Your task to perform on an android device: Open Youtube and go to "Your channel" Image 0: 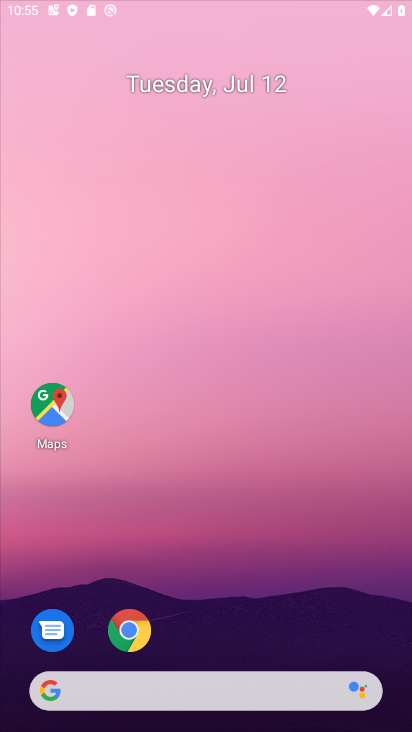
Step 0: click (280, 65)
Your task to perform on an android device: Open Youtube and go to "Your channel" Image 1: 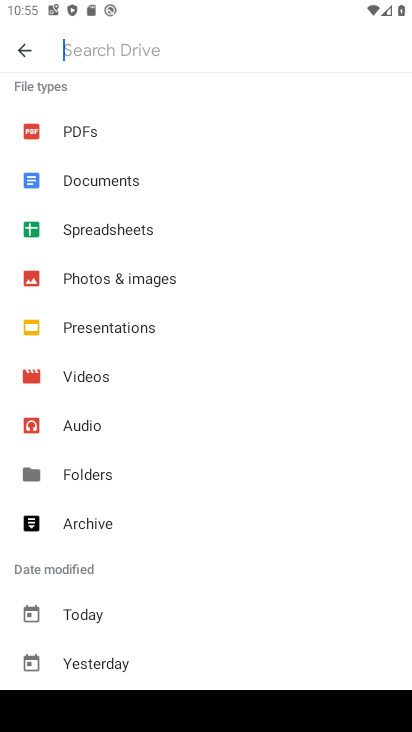
Step 1: press home button
Your task to perform on an android device: Open Youtube and go to "Your channel" Image 2: 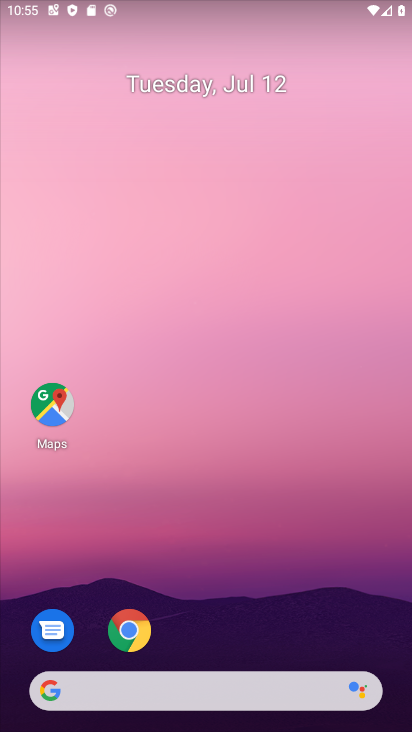
Step 2: drag from (319, 633) to (187, 175)
Your task to perform on an android device: Open Youtube and go to "Your channel" Image 3: 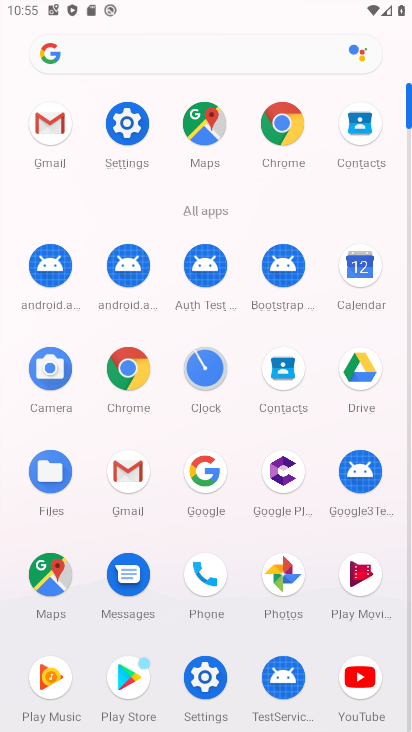
Step 3: click (369, 681)
Your task to perform on an android device: Open Youtube and go to "Your channel" Image 4: 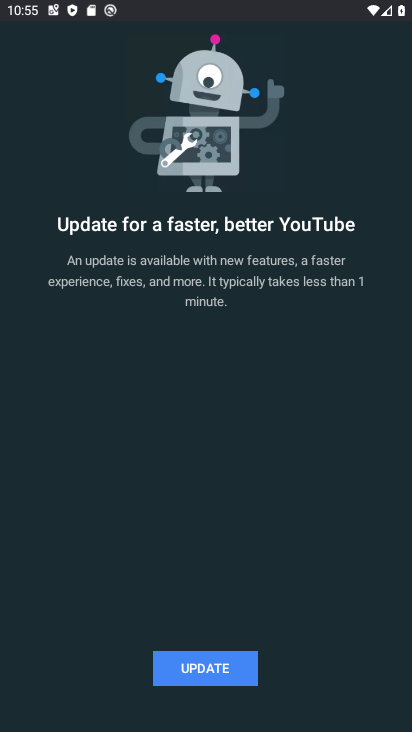
Step 4: click (213, 688)
Your task to perform on an android device: Open Youtube and go to "Your channel" Image 5: 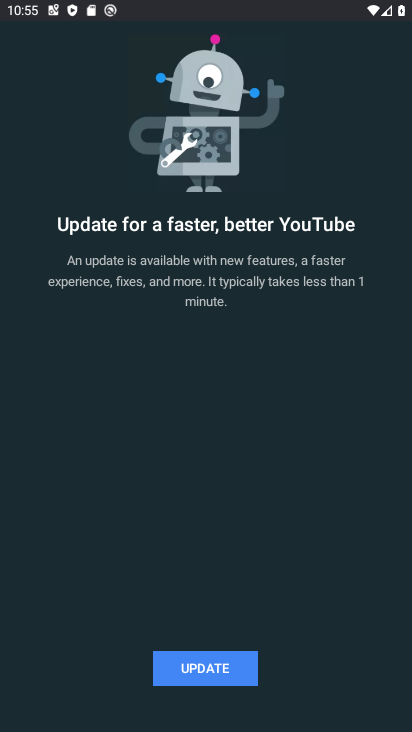
Step 5: click (211, 675)
Your task to perform on an android device: Open Youtube and go to "Your channel" Image 6: 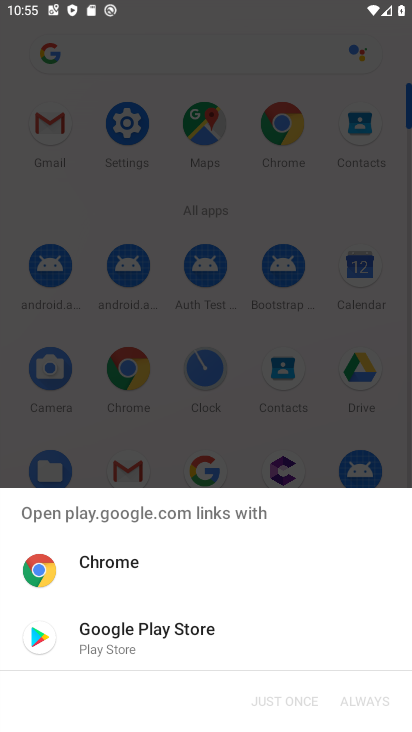
Step 6: click (104, 623)
Your task to perform on an android device: Open Youtube and go to "Your channel" Image 7: 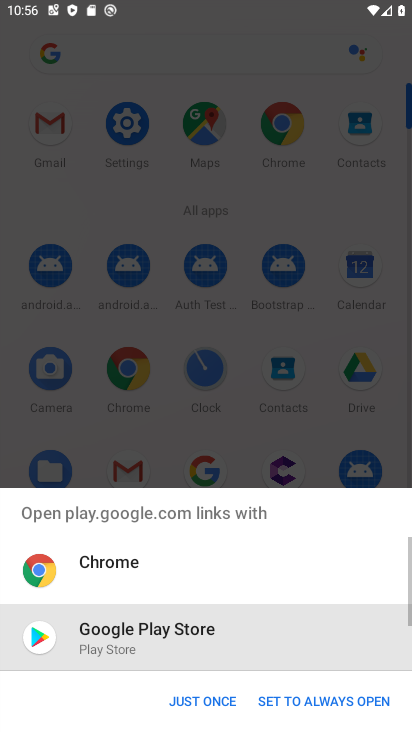
Step 7: click (211, 702)
Your task to perform on an android device: Open Youtube and go to "Your channel" Image 8: 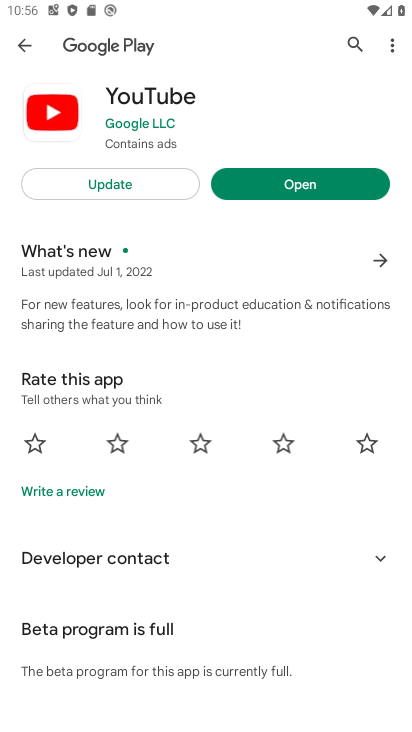
Step 8: click (125, 181)
Your task to perform on an android device: Open Youtube and go to "Your channel" Image 9: 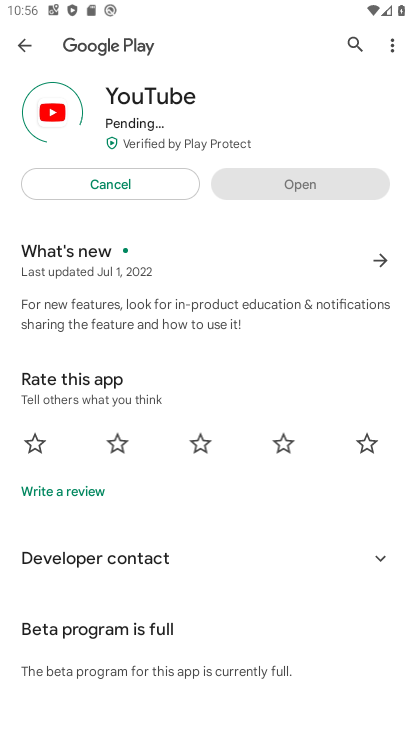
Step 9: task complete